Your task to perform on an android device: Show me recent news Image 0: 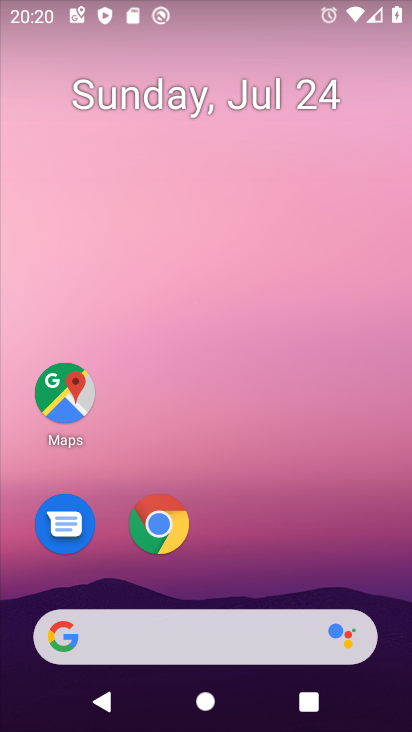
Step 0: click (222, 646)
Your task to perform on an android device: Show me recent news Image 1: 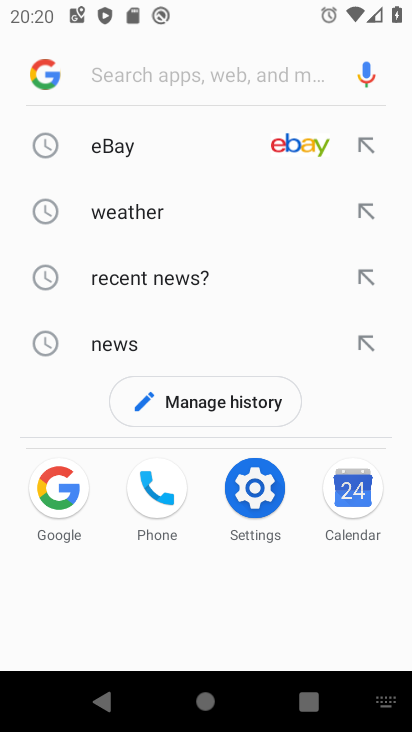
Step 1: click (145, 269)
Your task to perform on an android device: Show me recent news Image 2: 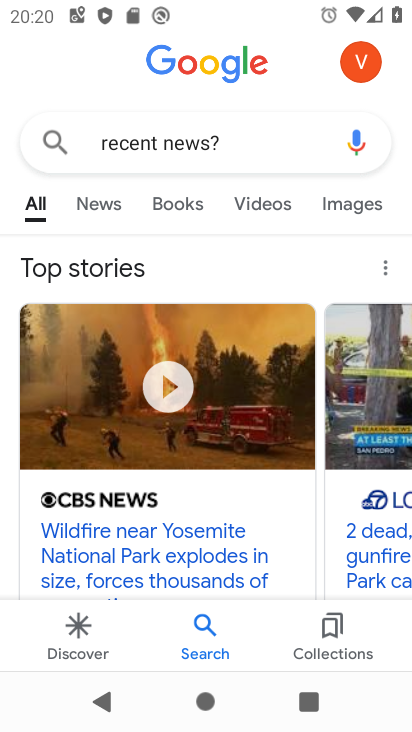
Step 2: task complete